Your task to perform on an android device: When is my next appointment? Image 0: 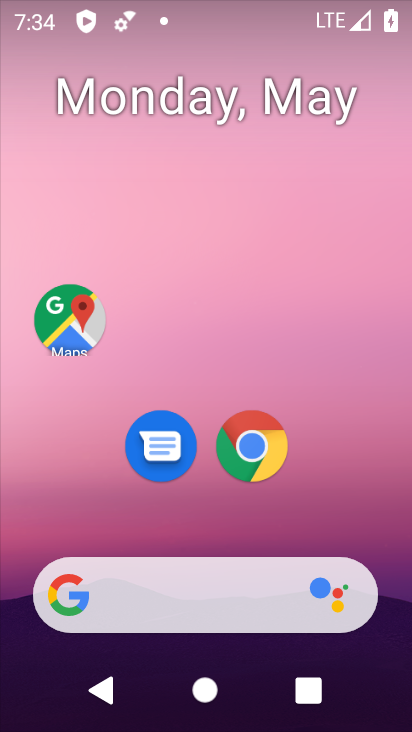
Step 0: drag from (365, 548) to (318, 0)
Your task to perform on an android device: When is my next appointment? Image 1: 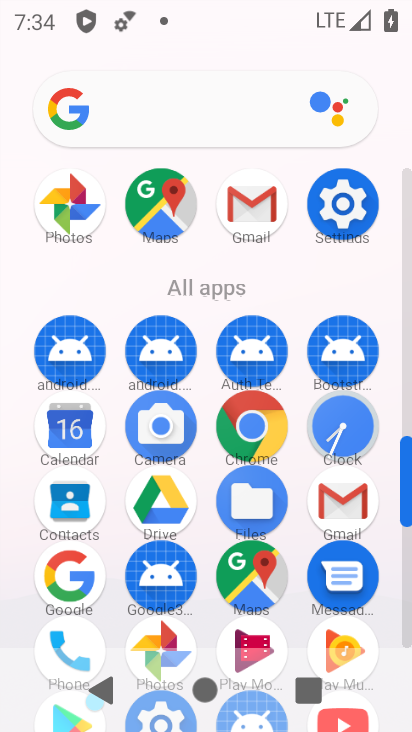
Step 1: click (64, 427)
Your task to perform on an android device: When is my next appointment? Image 2: 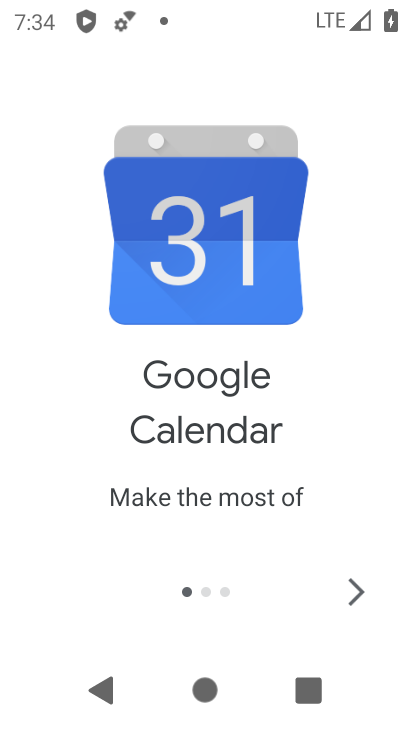
Step 2: click (349, 594)
Your task to perform on an android device: When is my next appointment? Image 3: 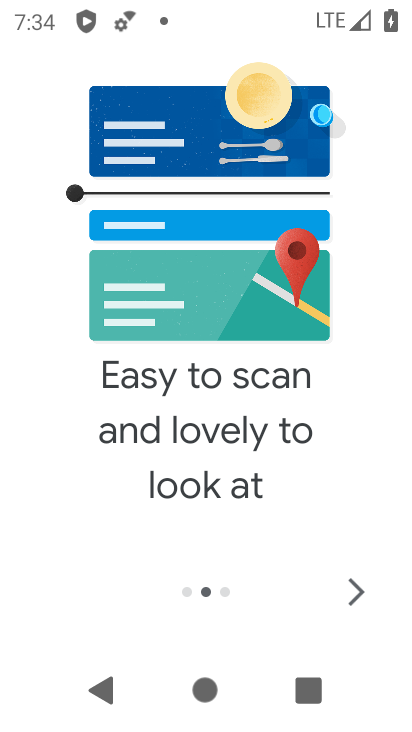
Step 3: click (349, 594)
Your task to perform on an android device: When is my next appointment? Image 4: 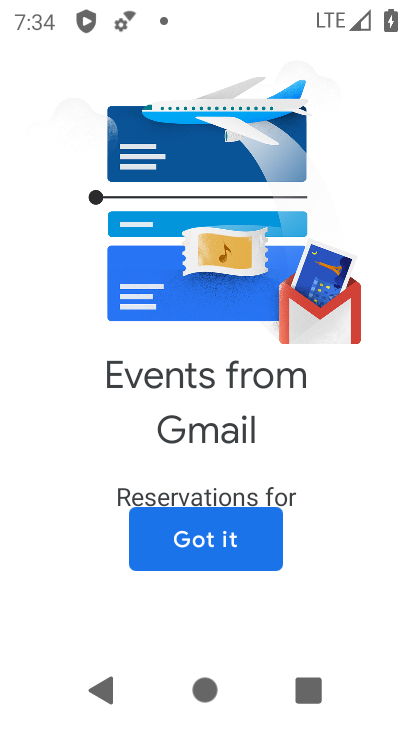
Step 4: click (207, 553)
Your task to perform on an android device: When is my next appointment? Image 5: 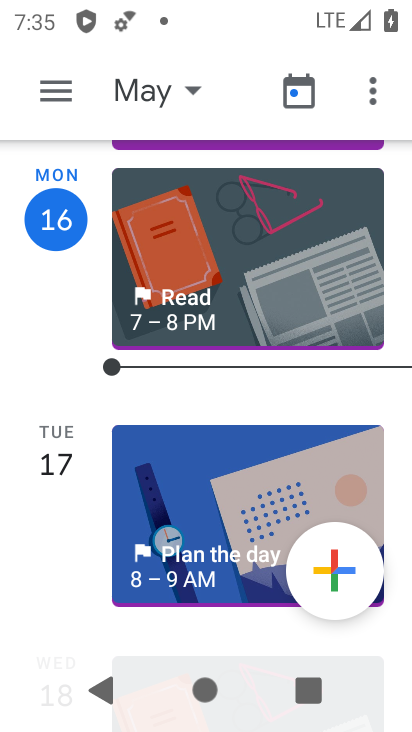
Step 5: click (70, 94)
Your task to perform on an android device: When is my next appointment? Image 6: 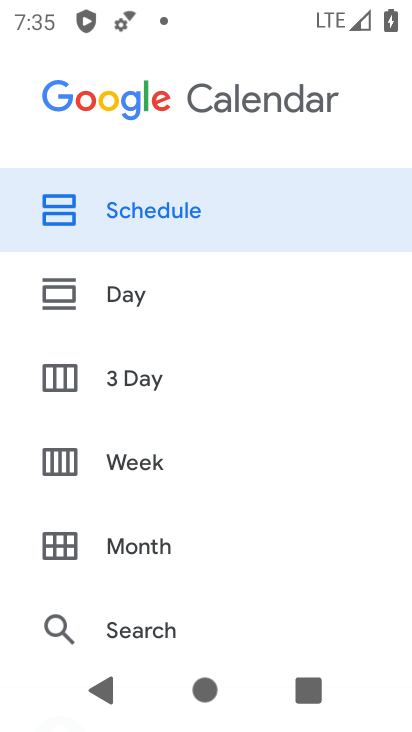
Step 6: drag from (148, 462) to (148, 181)
Your task to perform on an android device: When is my next appointment? Image 7: 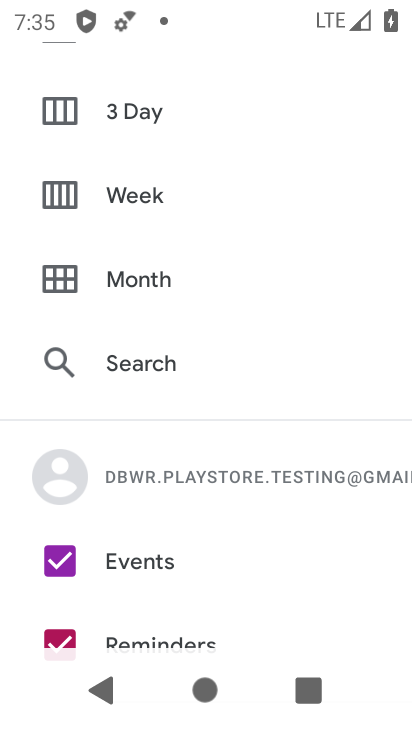
Step 7: drag from (139, 401) to (139, 148)
Your task to perform on an android device: When is my next appointment? Image 8: 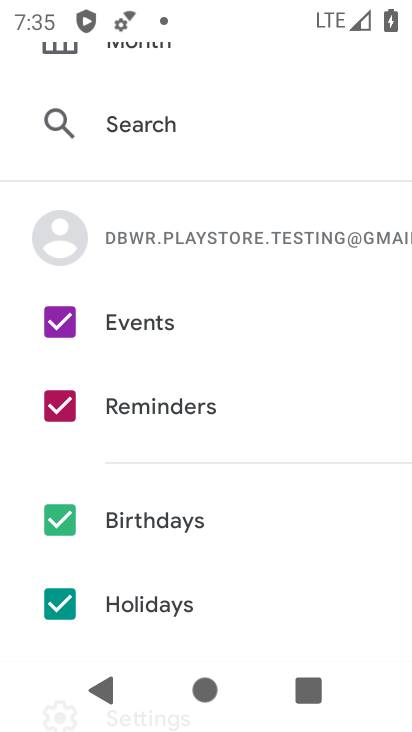
Step 8: click (69, 526)
Your task to perform on an android device: When is my next appointment? Image 9: 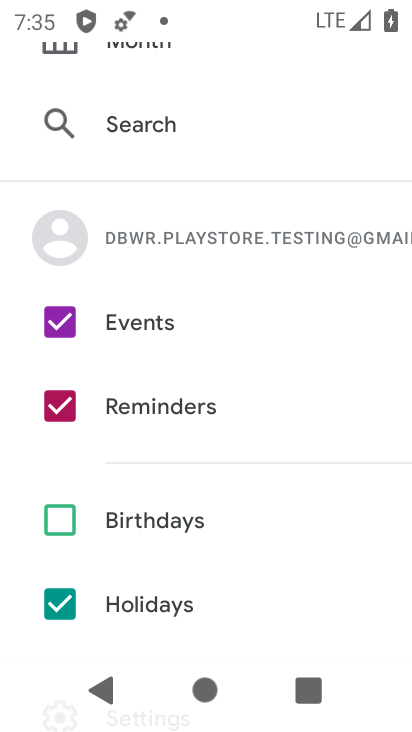
Step 9: click (66, 603)
Your task to perform on an android device: When is my next appointment? Image 10: 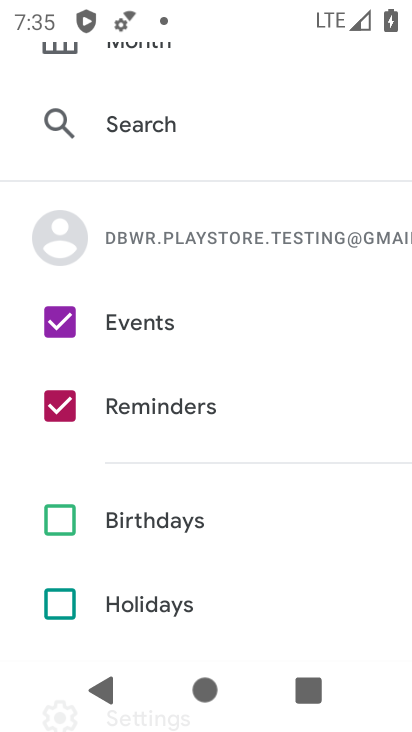
Step 10: click (65, 416)
Your task to perform on an android device: When is my next appointment? Image 11: 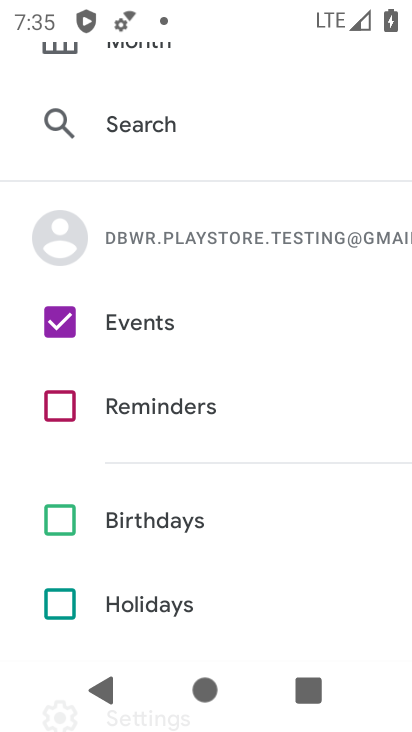
Step 11: drag from (191, 192) to (143, 563)
Your task to perform on an android device: When is my next appointment? Image 12: 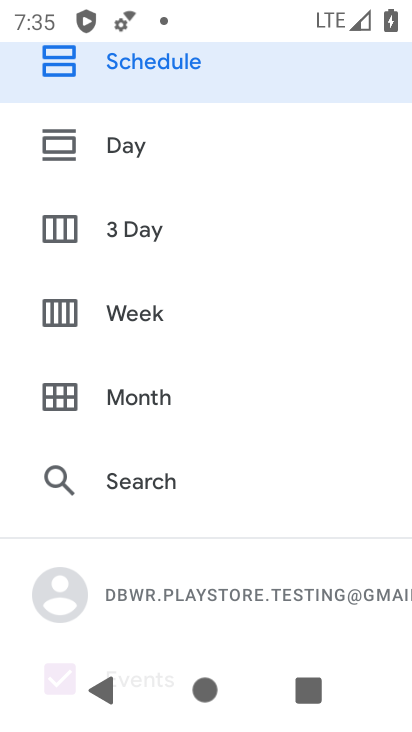
Step 12: click (61, 63)
Your task to perform on an android device: When is my next appointment? Image 13: 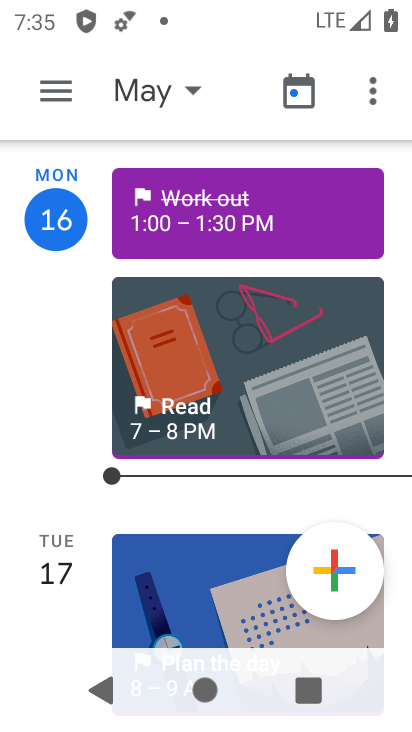
Step 13: drag from (175, 303) to (183, 387)
Your task to perform on an android device: When is my next appointment? Image 14: 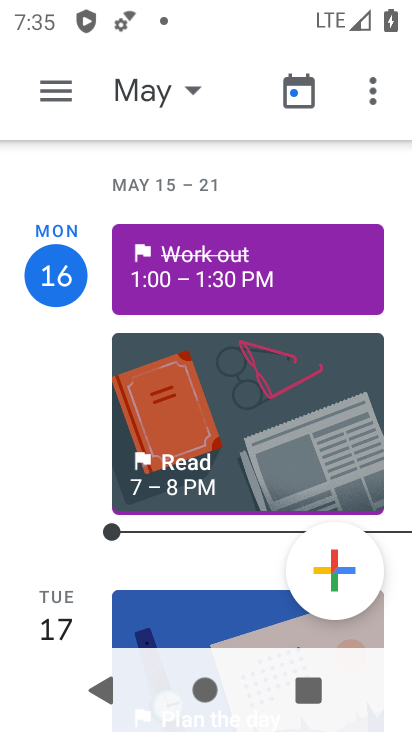
Step 14: drag from (215, 474) to (211, 117)
Your task to perform on an android device: When is my next appointment? Image 15: 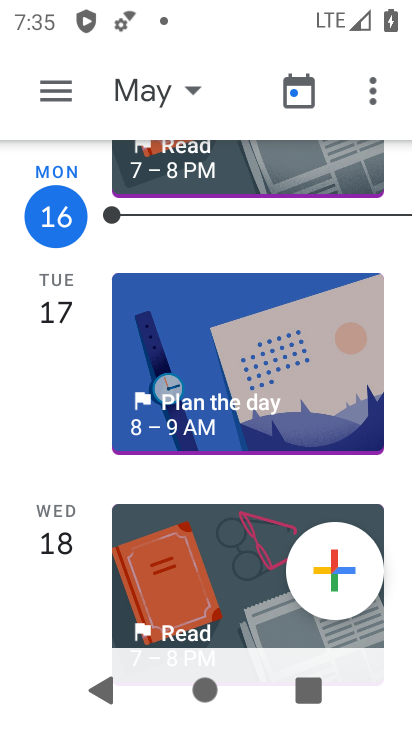
Step 15: drag from (215, 429) to (209, 99)
Your task to perform on an android device: When is my next appointment? Image 16: 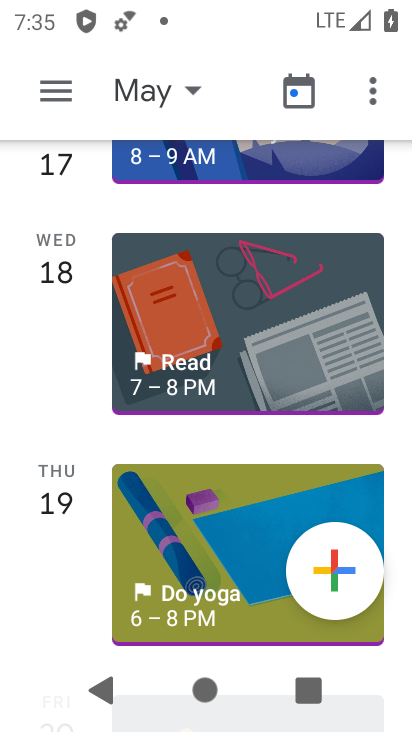
Step 16: drag from (212, 385) to (211, 91)
Your task to perform on an android device: When is my next appointment? Image 17: 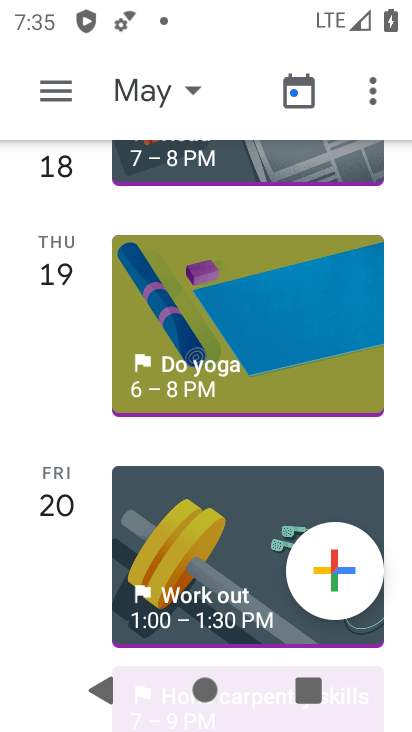
Step 17: drag from (194, 401) to (157, 92)
Your task to perform on an android device: When is my next appointment? Image 18: 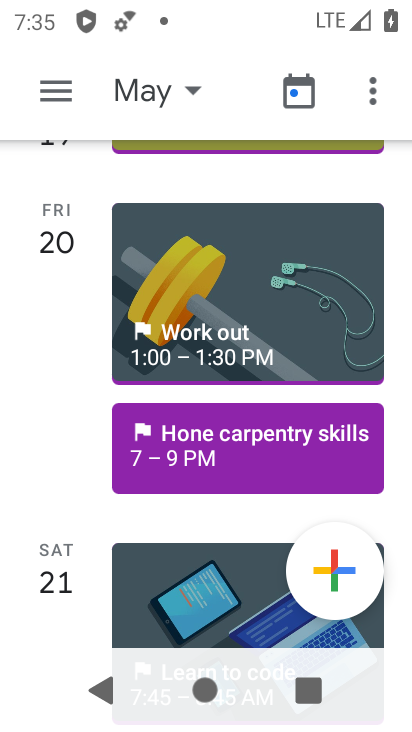
Step 18: click (174, 425)
Your task to perform on an android device: When is my next appointment? Image 19: 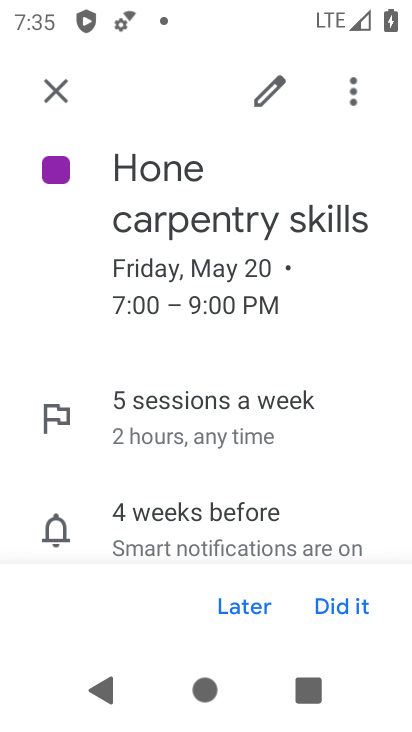
Step 19: task complete